Your task to perform on an android device: check data usage Image 0: 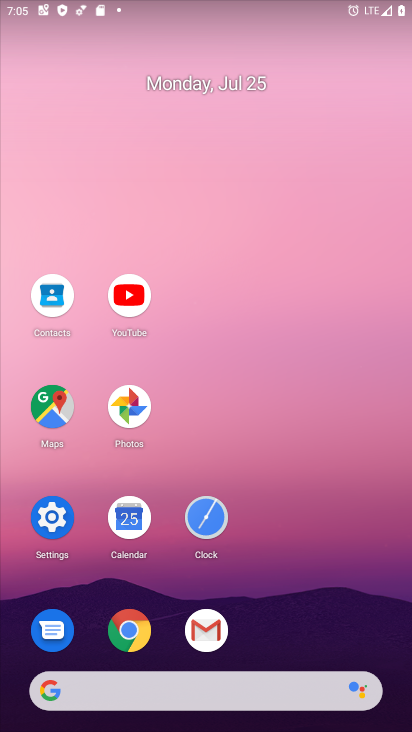
Step 0: click (65, 512)
Your task to perform on an android device: check data usage Image 1: 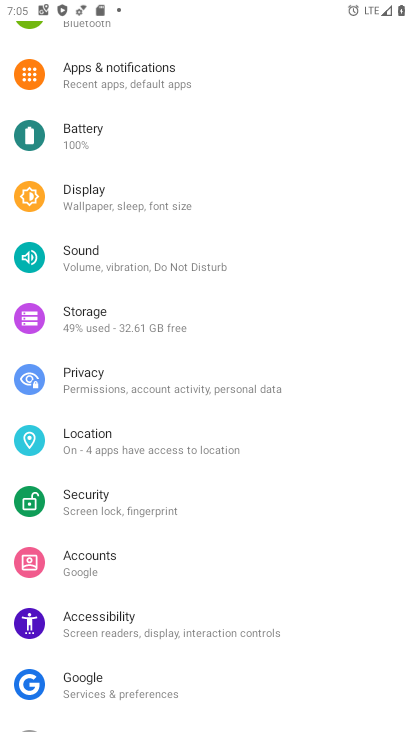
Step 1: drag from (233, 60) to (264, 159)
Your task to perform on an android device: check data usage Image 2: 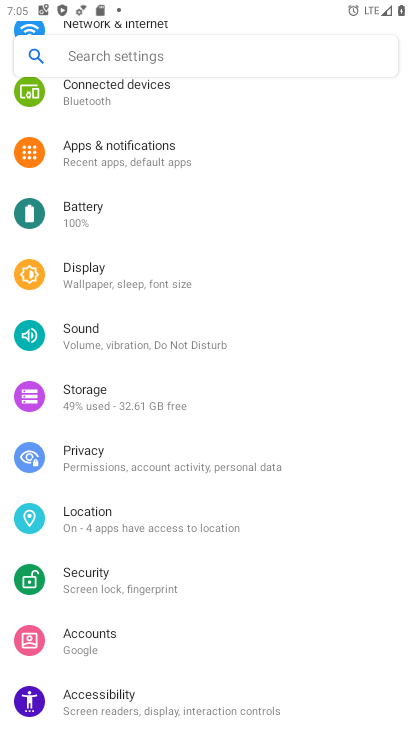
Step 2: drag from (246, 175) to (197, 469)
Your task to perform on an android device: check data usage Image 3: 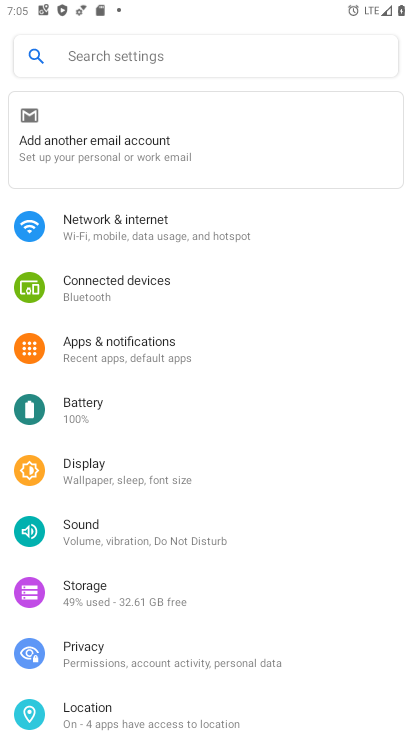
Step 3: click (124, 222)
Your task to perform on an android device: check data usage Image 4: 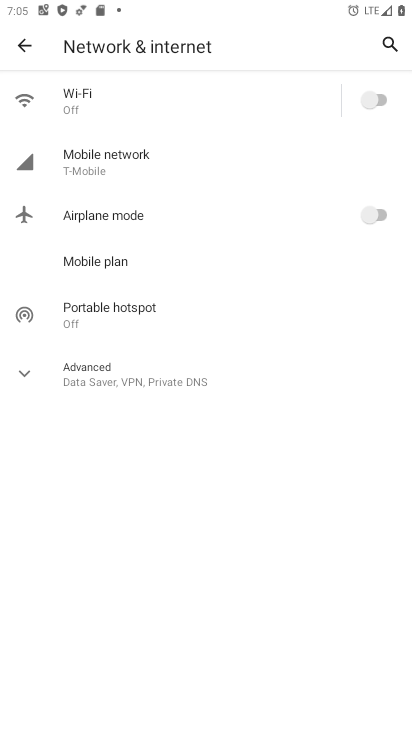
Step 4: click (141, 165)
Your task to perform on an android device: check data usage Image 5: 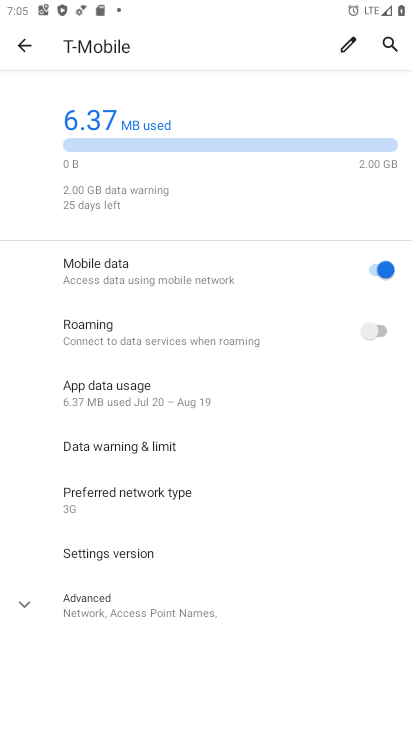
Step 5: task complete